Your task to perform on an android device: When is my next meeting? Image 0: 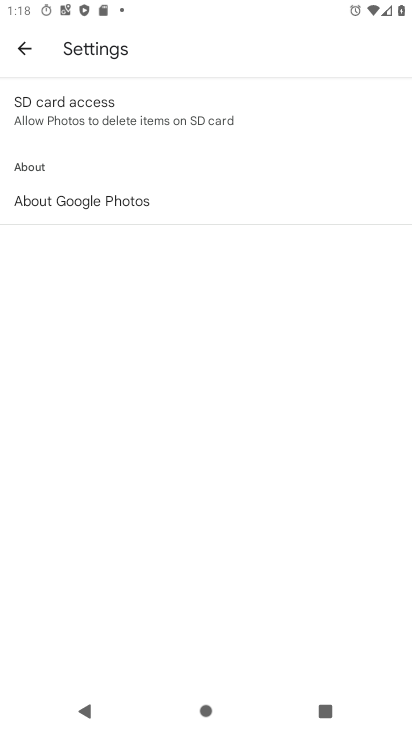
Step 0: press home button
Your task to perform on an android device: When is my next meeting? Image 1: 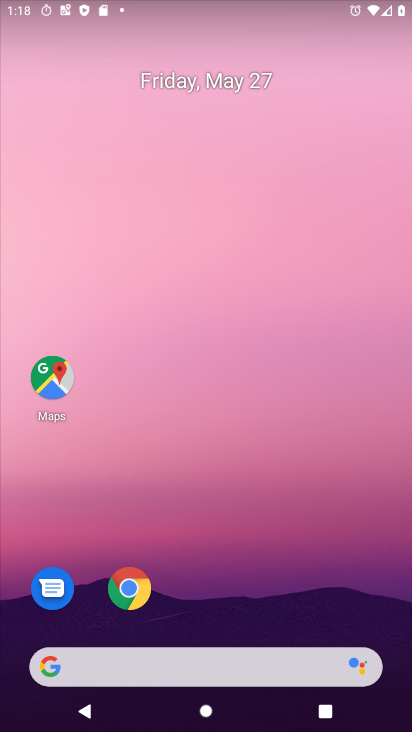
Step 1: drag from (220, 626) to (260, 3)
Your task to perform on an android device: When is my next meeting? Image 2: 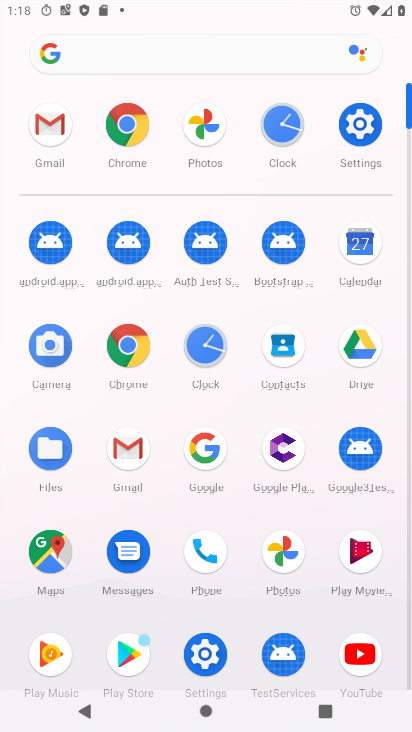
Step 2: click (360, 243)
Your task to perform on an android device: When is my next meeting? Image 3: 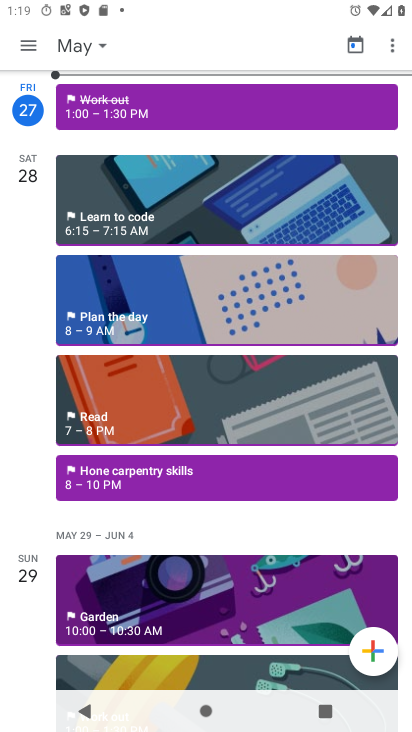
Step 3: task complete